Your task to perform on an android device: set the timer Image 0: 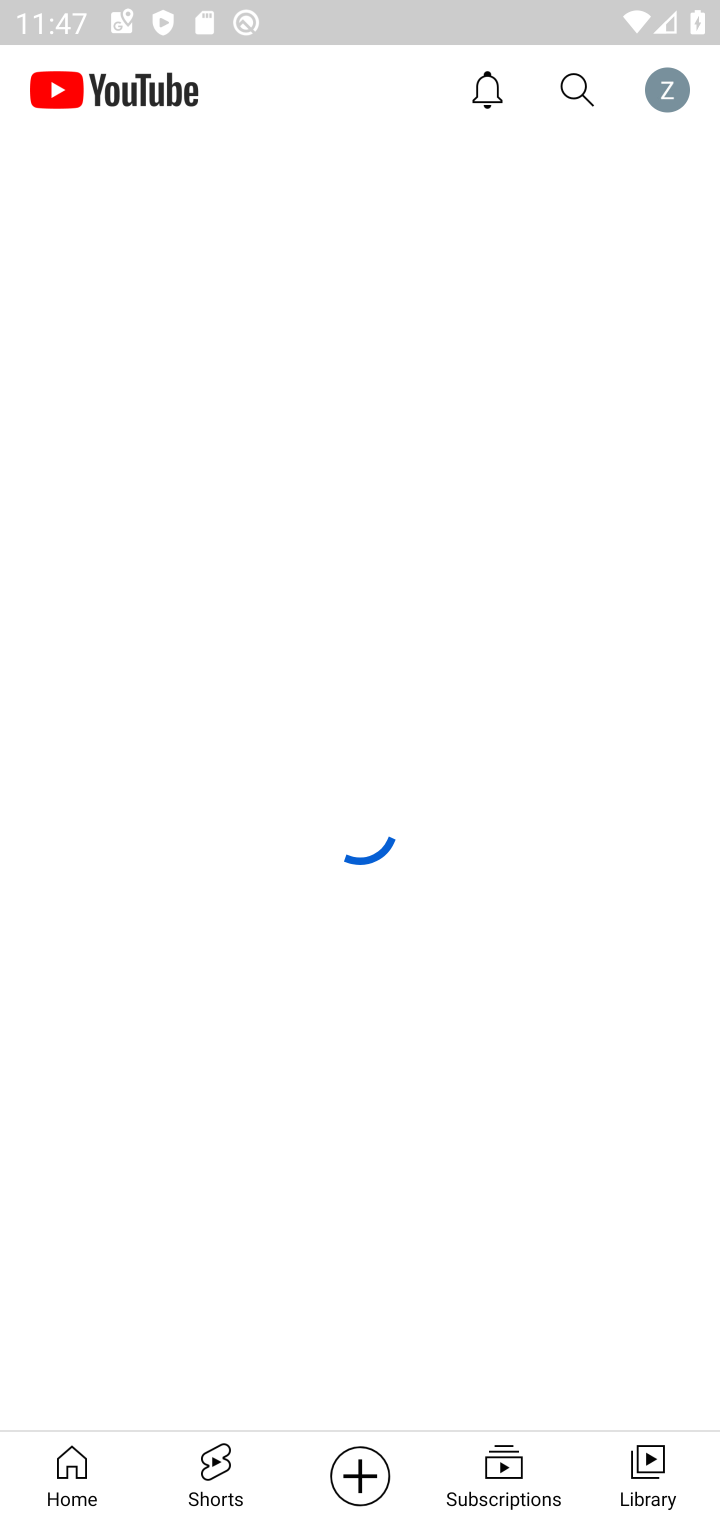
Step 0: press home button
Your task to perform on an android device: set the timer Image 1: 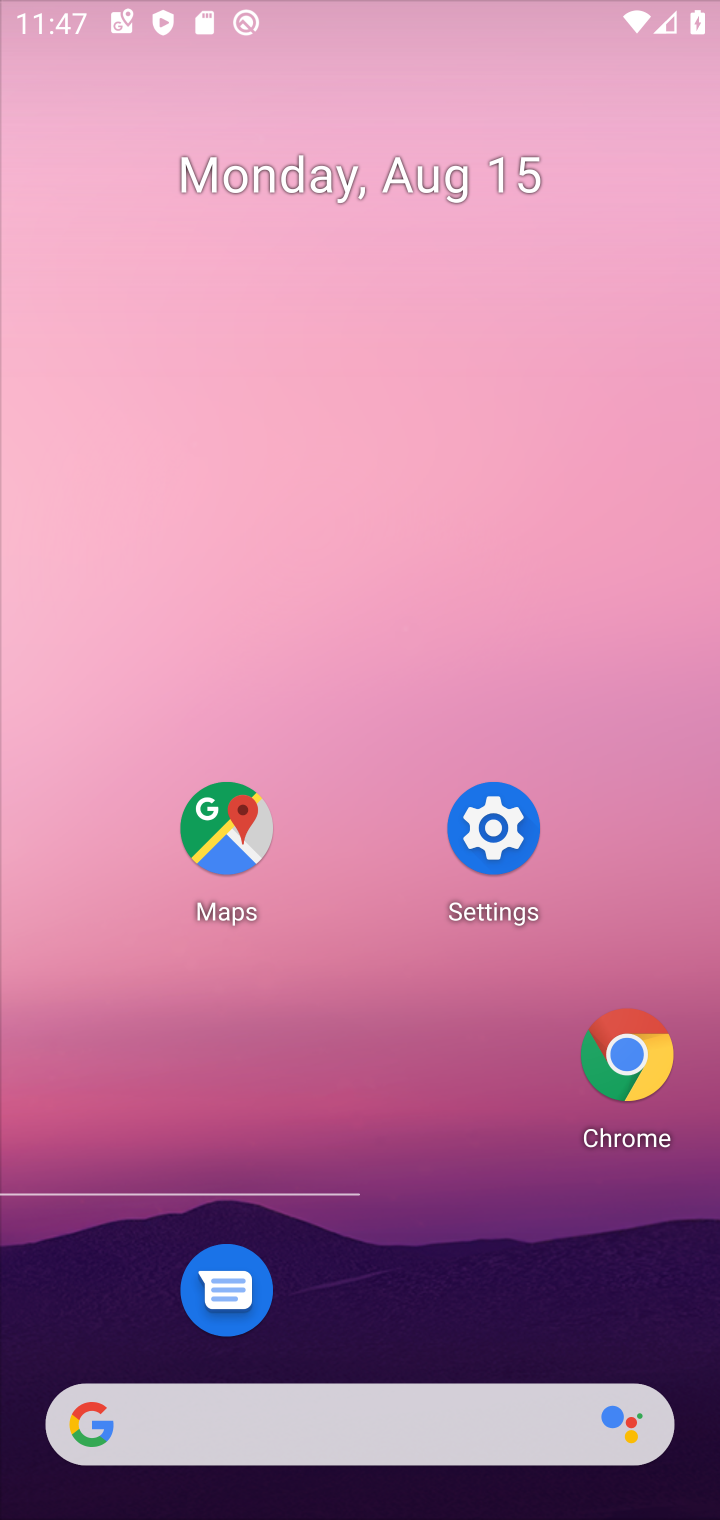
Step 1: press home button
Your task to perform on an android device: set the timer Image 2: 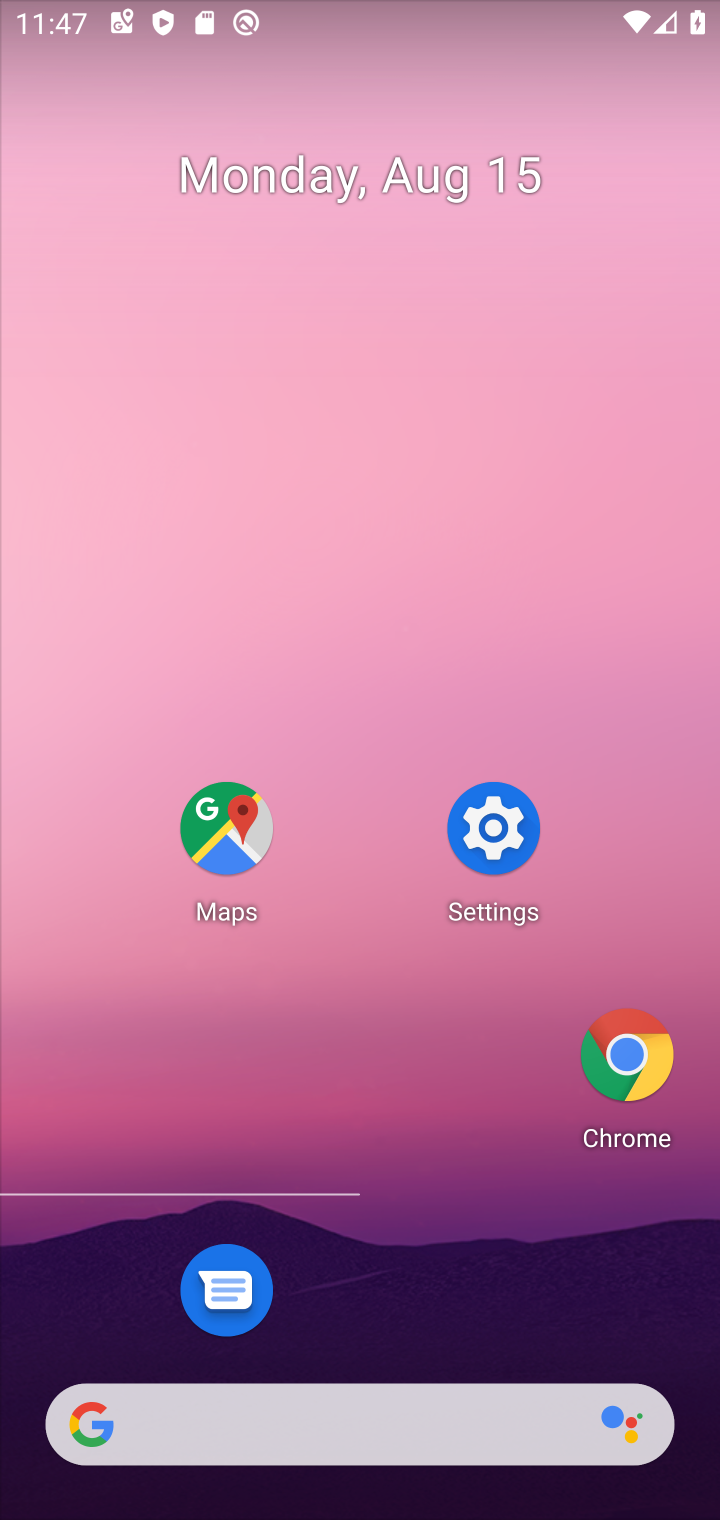
Step 2: drag from (407, 1374) to (591, 77)
Your task to perform on an android device: set the timer Image 3: 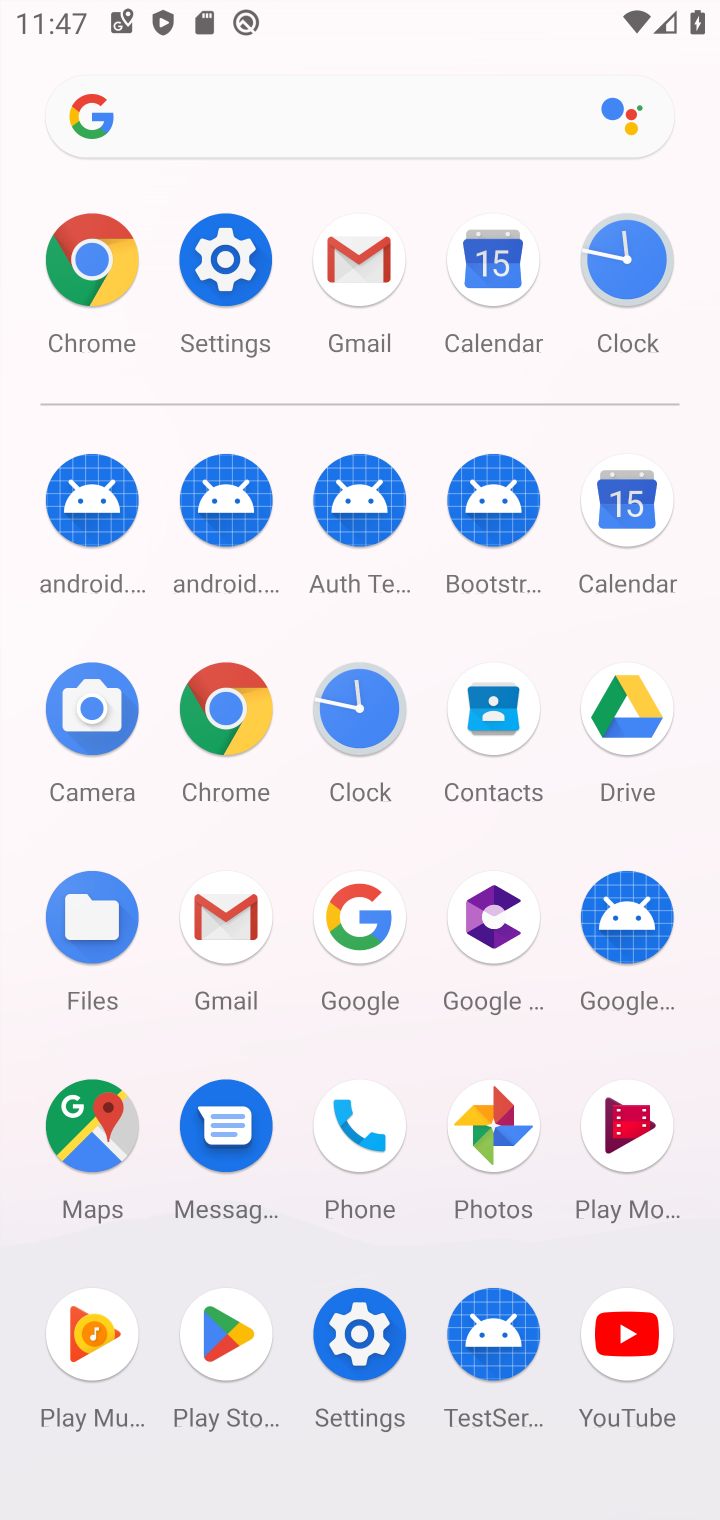
Step 3: click (369, 733)
Your task to perform on an android device: set the timer Image 4: 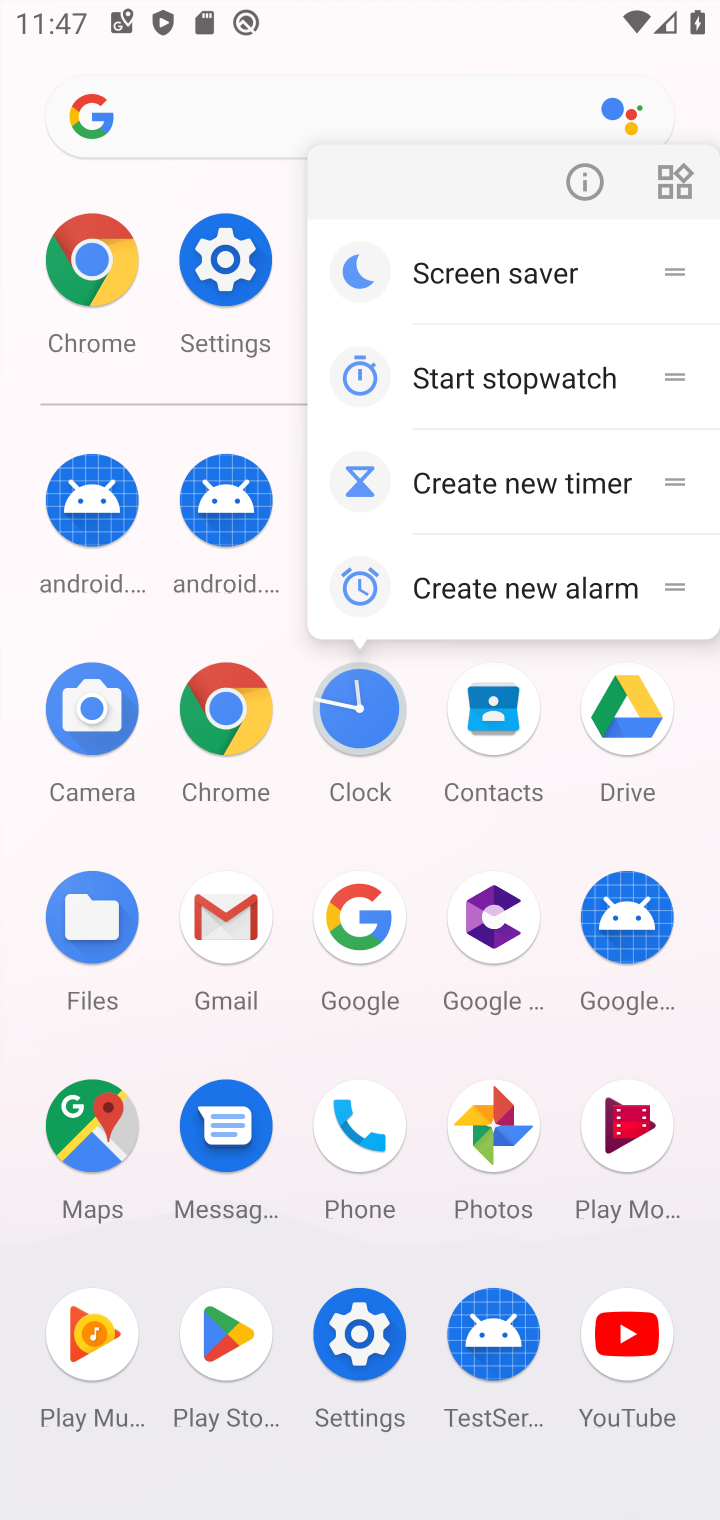
Step 4: click (369, 738)
Your task to perform on an android device: set the timer Image 5: 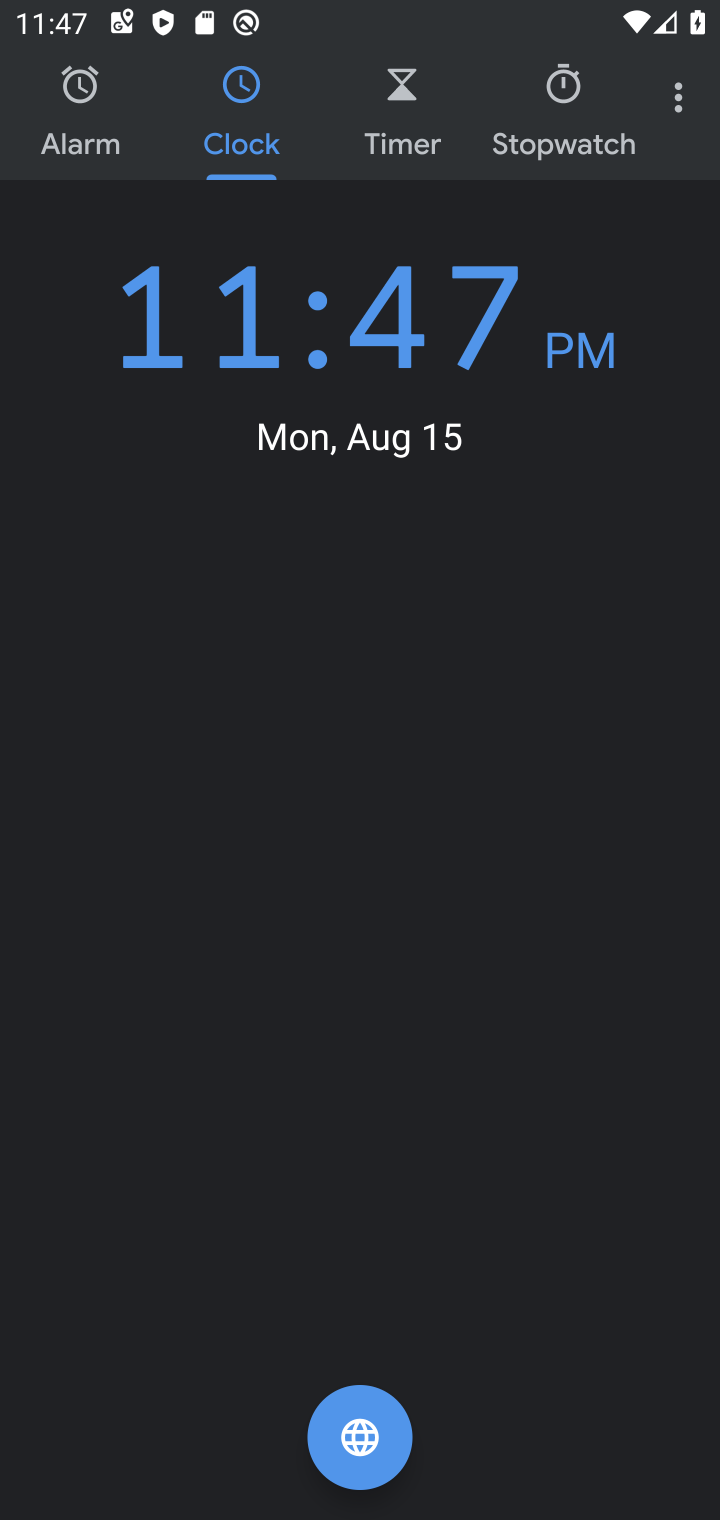
Step 5: click (414, 127)
Your task to perform on an android device: set the timer Image 6: 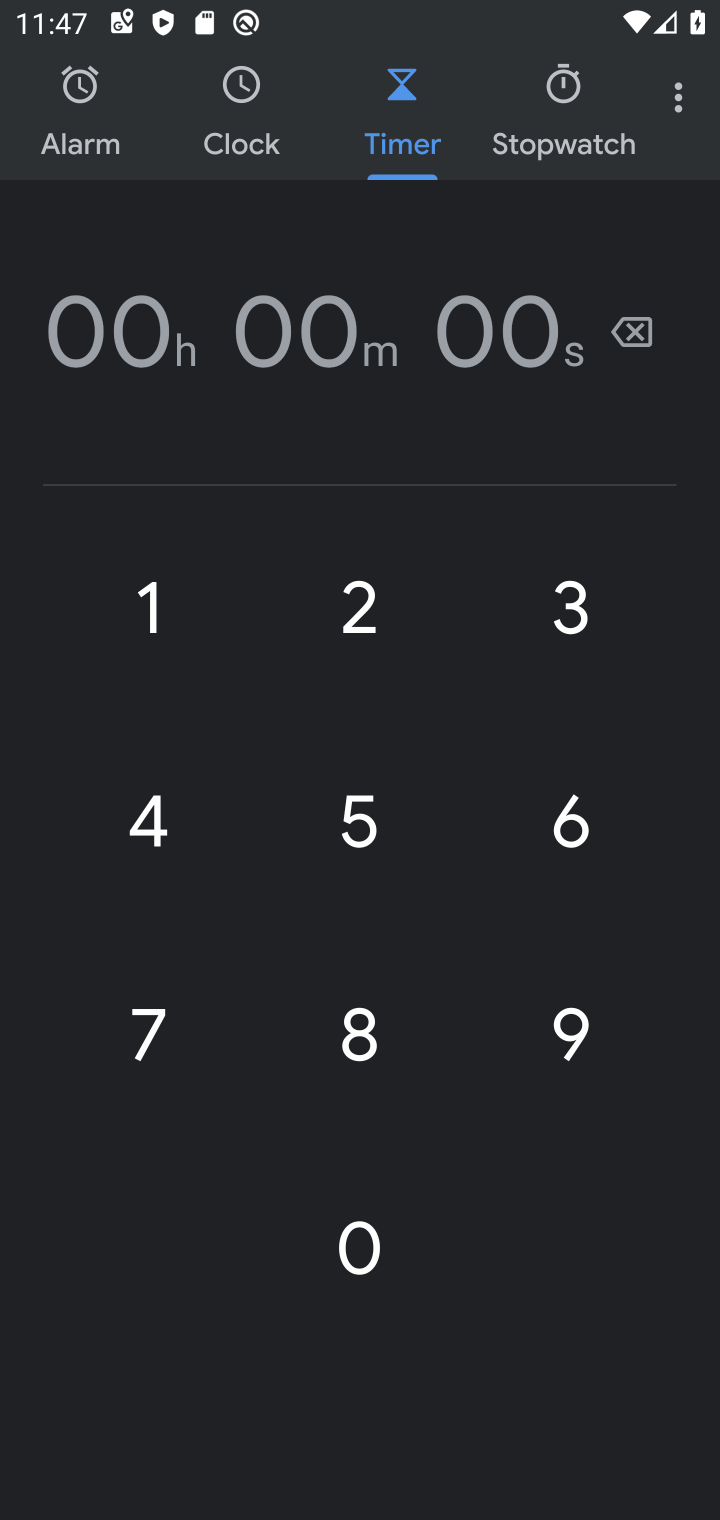
Step 6: click (163, 814)
Your task to perform on an android device: set the timer Image 7: 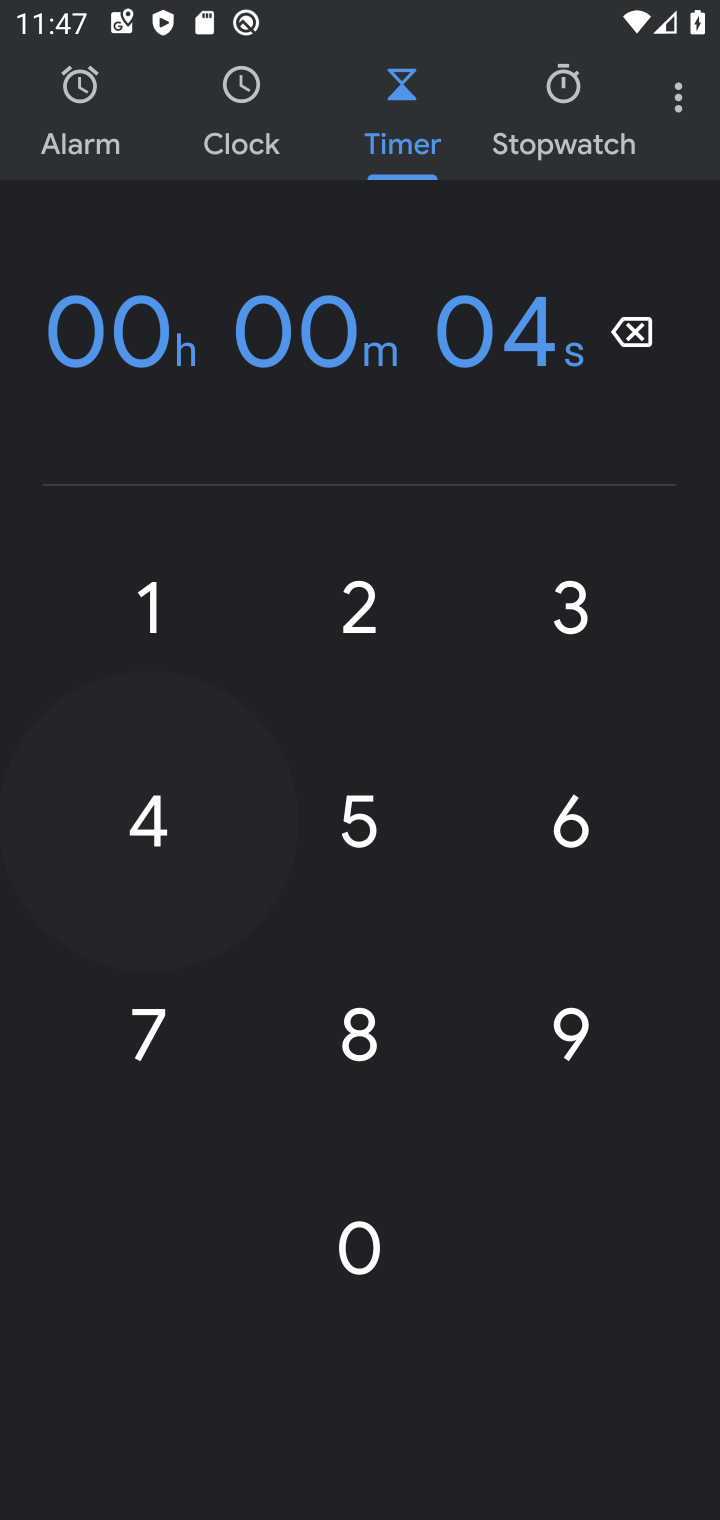
Step 7: click (576, 1031)
Your task to perform on an android device: set the timer Image 8: 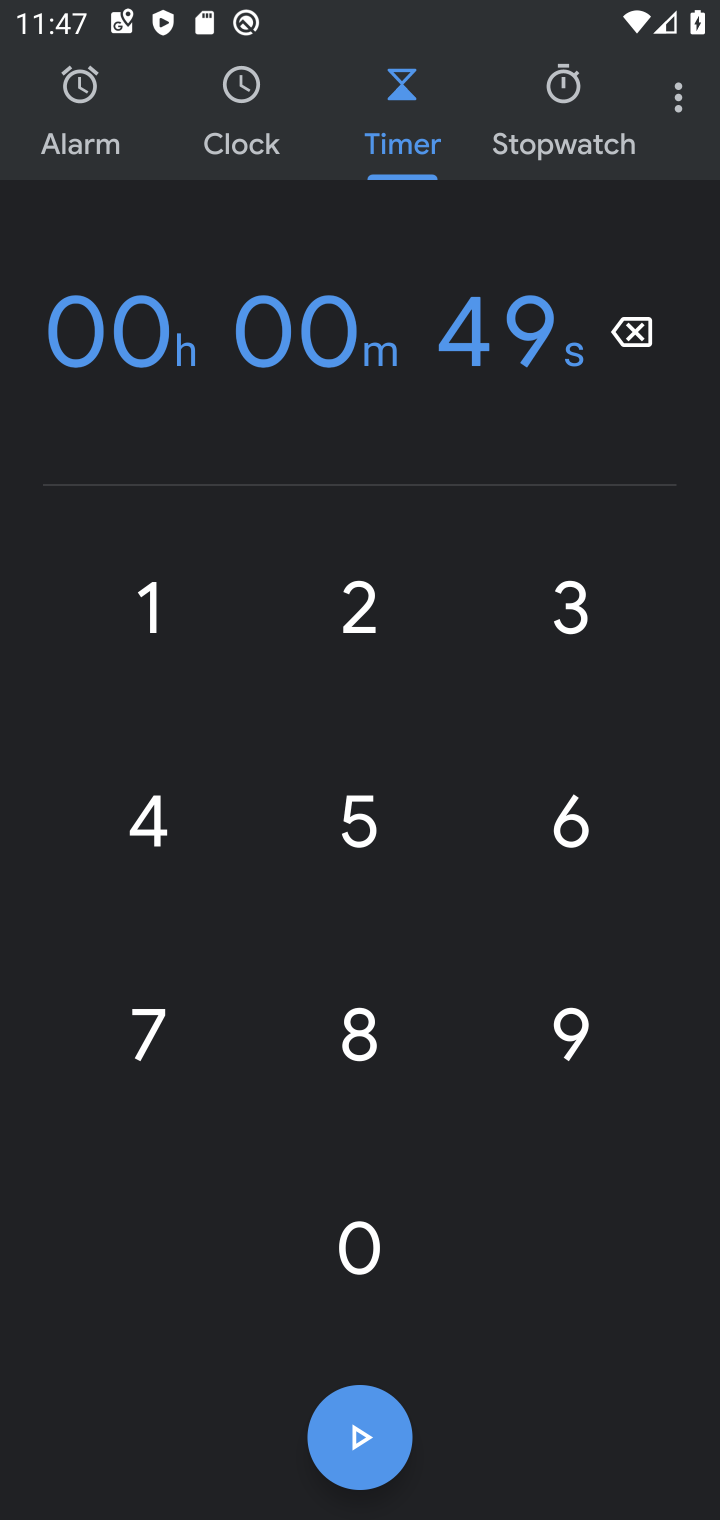
Step 8: click (373, 1430)
Your task to perform on an android device: set the timer Image 9: 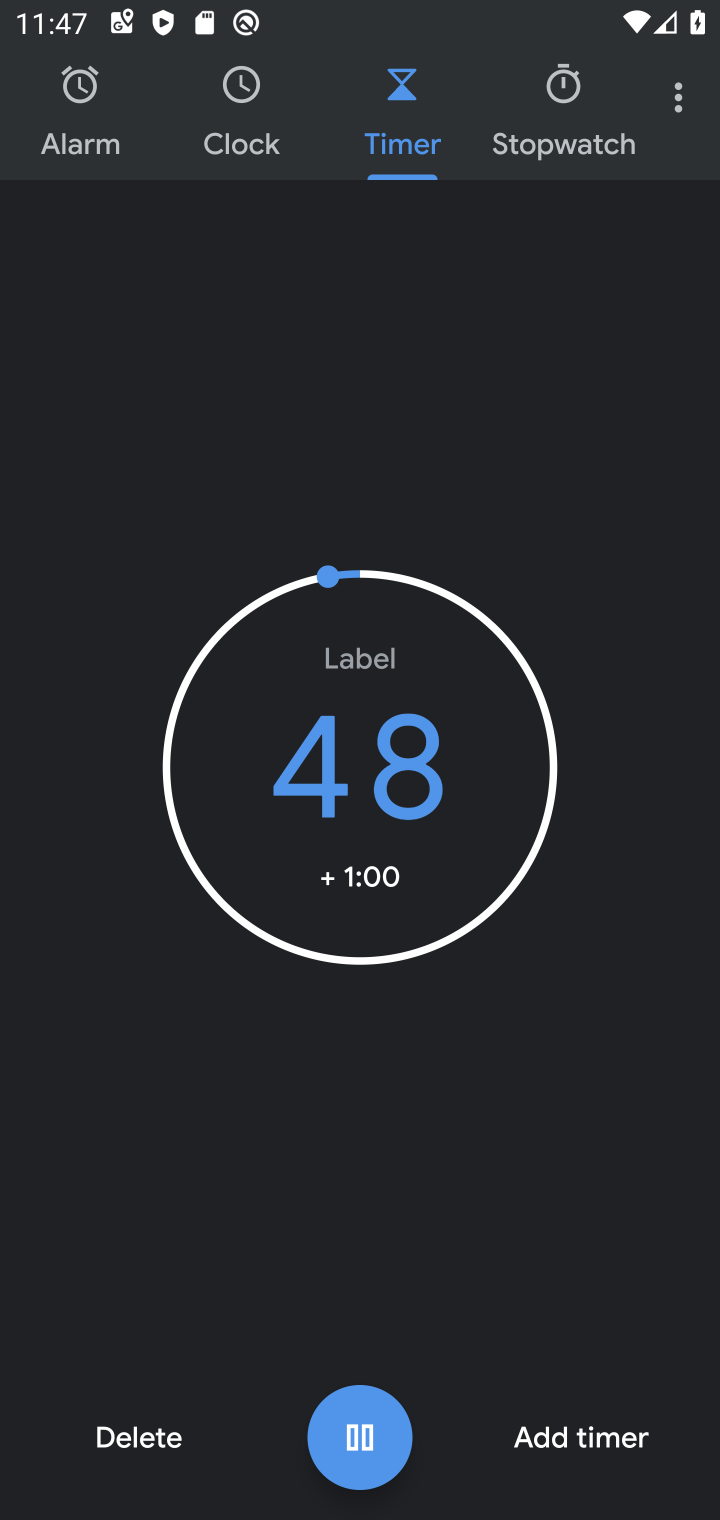
Step 9: click (369, 1404)
Your task to perform on an android device: set the timer Image 10: 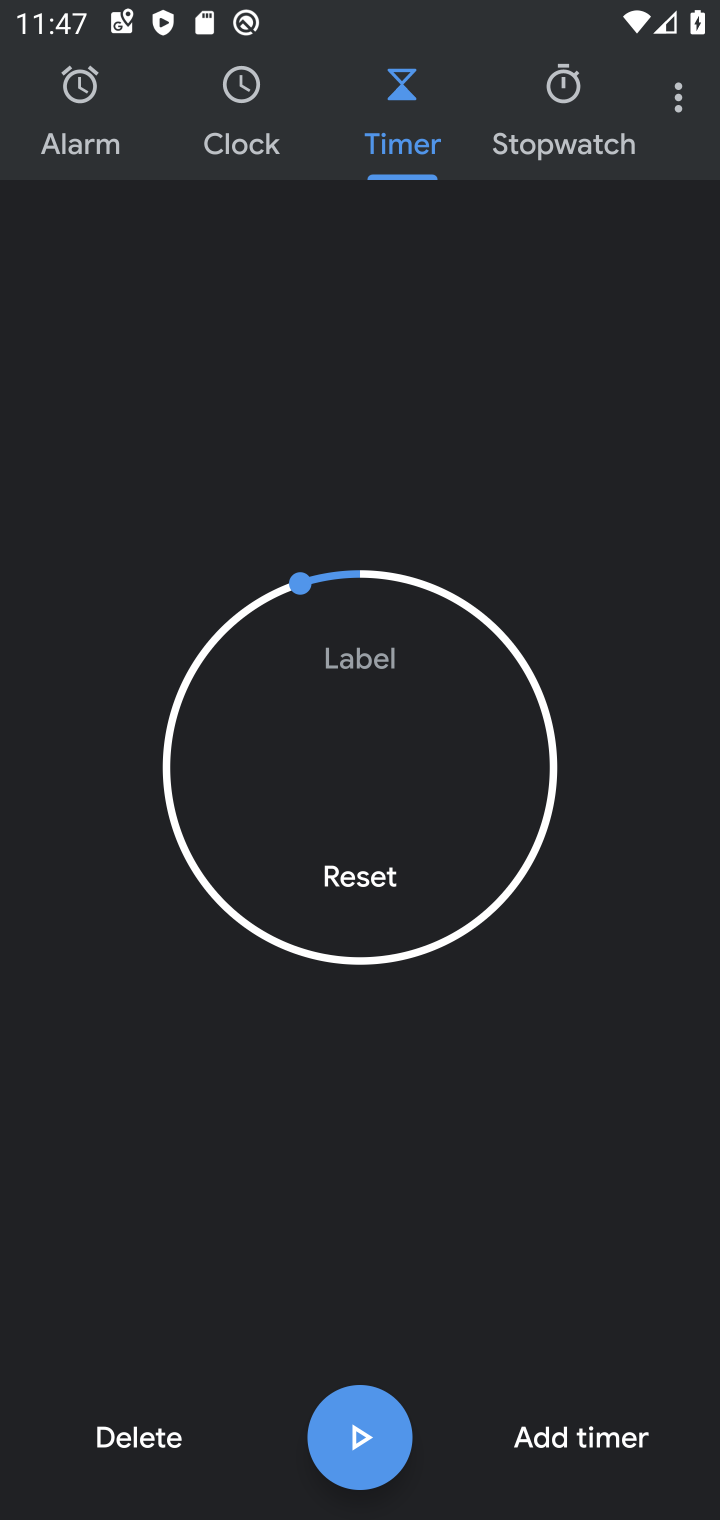
Step 10: task complete